Your task to perform on an android device: Go to ESPN.com Image 0: 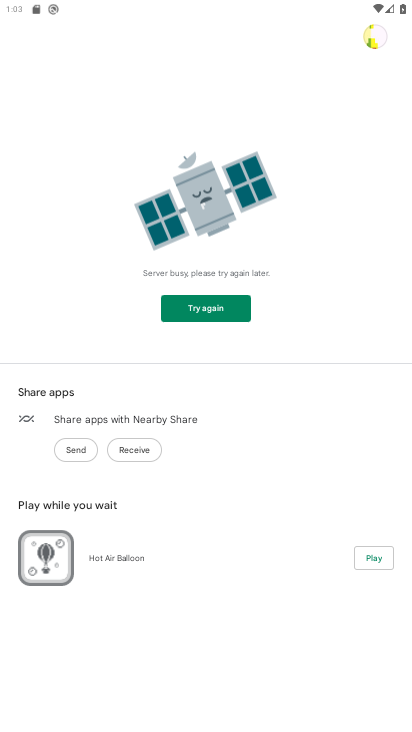
Step 0: press home button
Your task to perform on an android device: Go to ESPN.com Image 1: 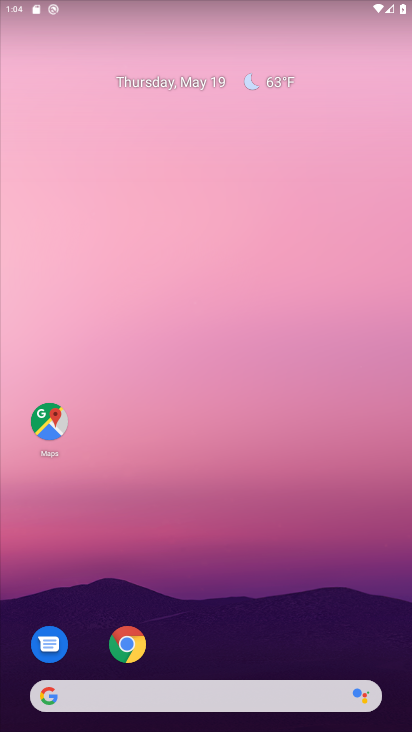
Step 1: click (127, 640)
Your task to perform on an android device: Go to ESPN.com Image 2: 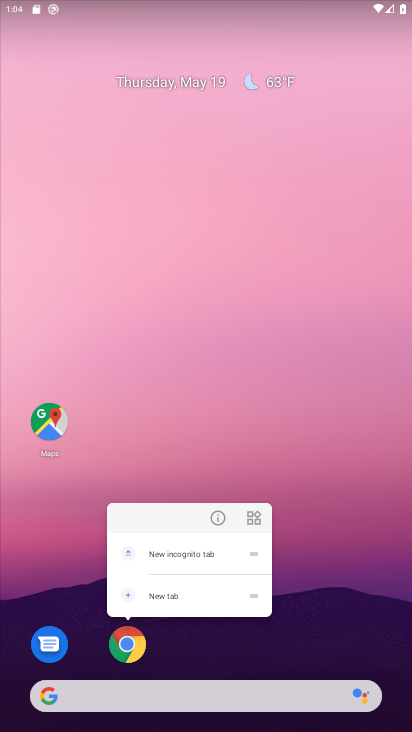
Step 2: click (128, 637)
Your task to perform on an android device: Go to ESPN.com Image 3: 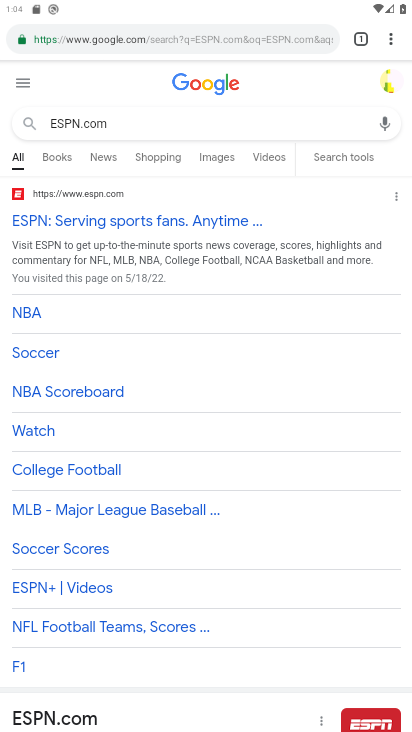
Step 3: click (167, 44)
Your task to perform on an android device: Go to ESPN.com Image 4: 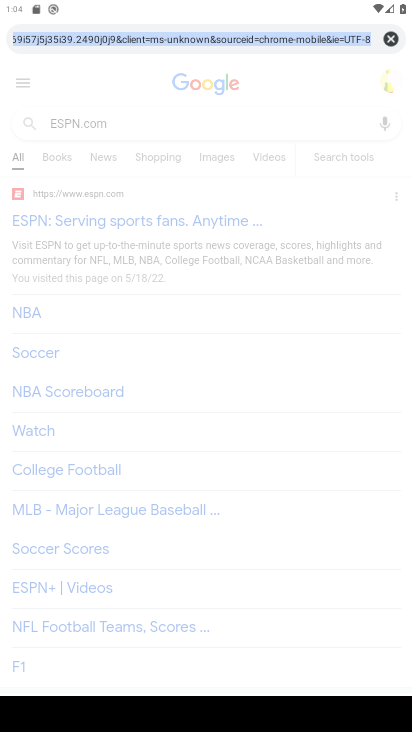
Step 4: type "ESPN.com"
Your task to perform on an android device: Go to ESPN.com Image 5: 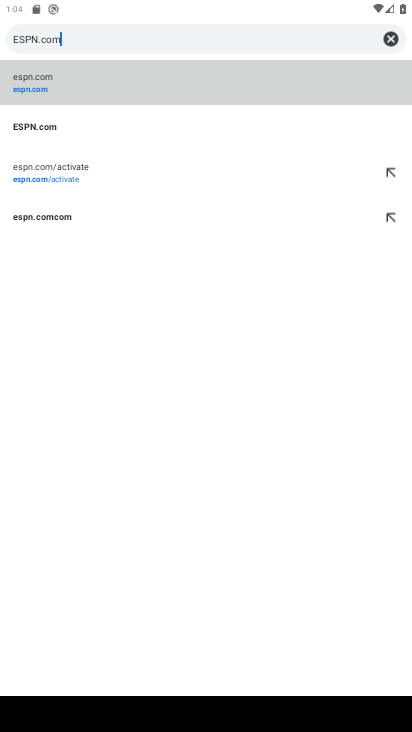
Step 5: click (90, 83)
Your task to perform on an android device: Go to ESPN.com Image 6: 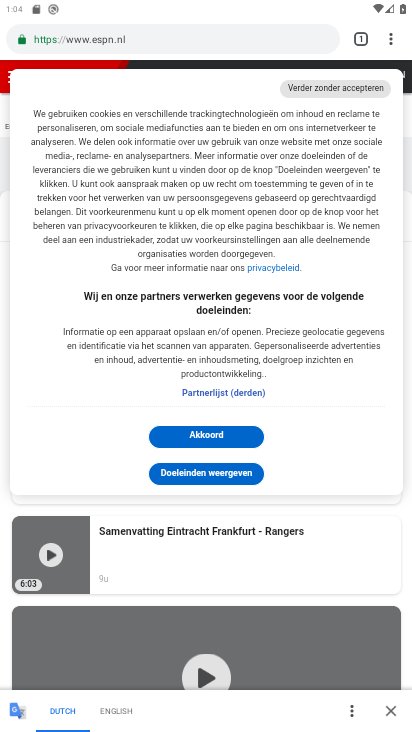
Step 6: task complete